Your task to perform on an android device: Open calendar and show me the second week of next month Image 0: 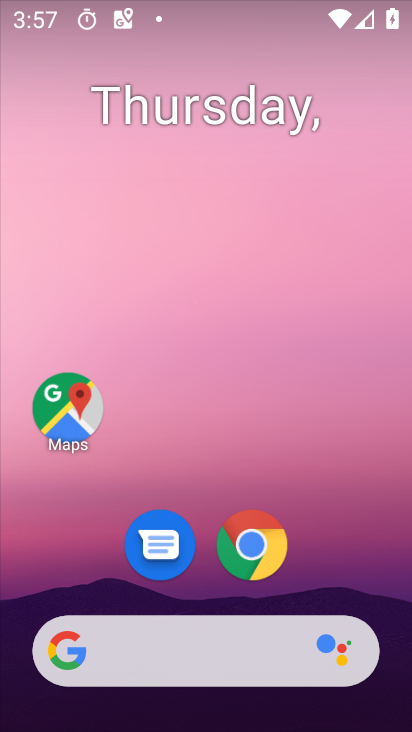
Step 0: drag from (218, 724) to (206, 196)
Your task to perform on an android device: Open calendar and show me the second week of next month Image 1: 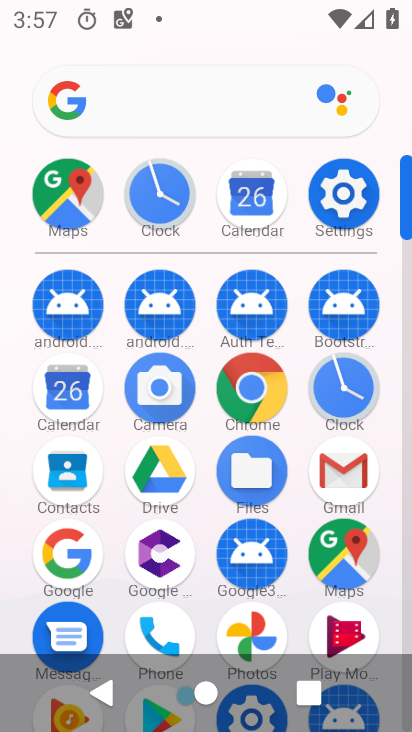
Step 1: click (56, 395)
Your task to perform on an android device: Open calendar and show me the second week of next month Image 2: 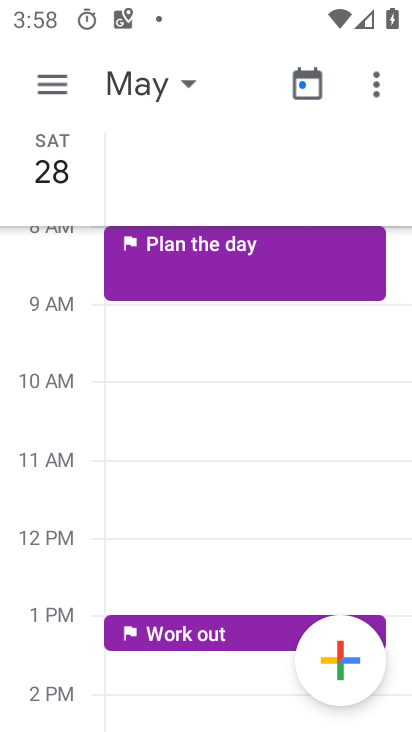
Step 2: click (188, 79)
Your task to perform on an android device: Open calendar and show me the second week of next month Image 3: 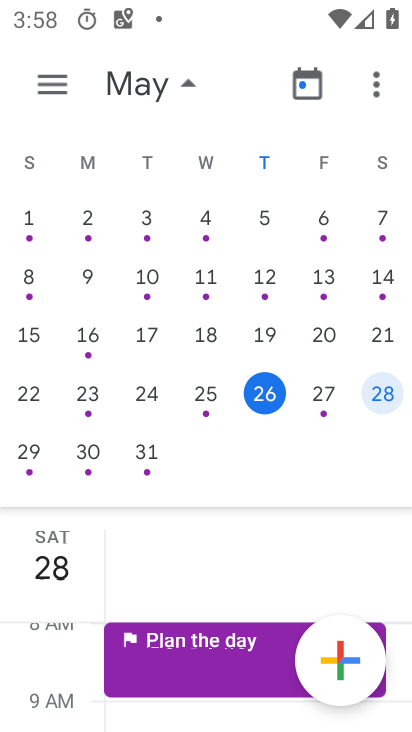
Step 3: drag from (340, 297) to (54, 276)
Your task to perform on an android device: Open calendar and show me the second week of next month Image 4: 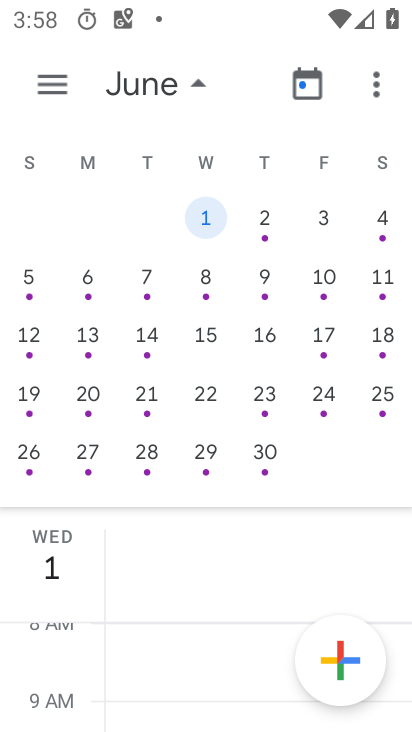
Step 4: click (85, 328)
Your task to perform on an android device: Open calendar and show me the second week of next month Image 5: 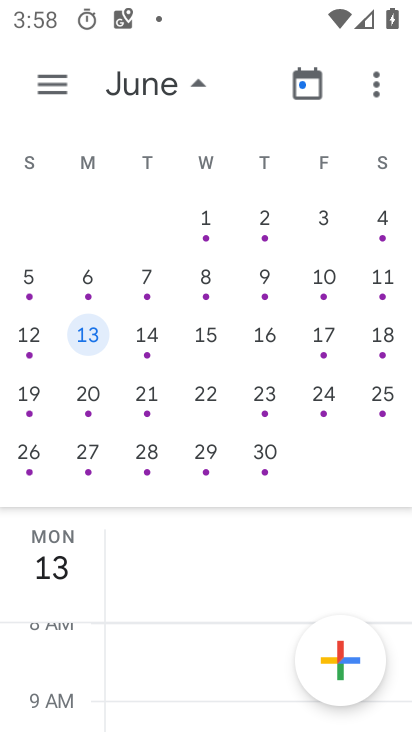
Step 5: click (49, 82)
Your task to perform on an android device: Open calendar and show me the second week of next month Image 6: 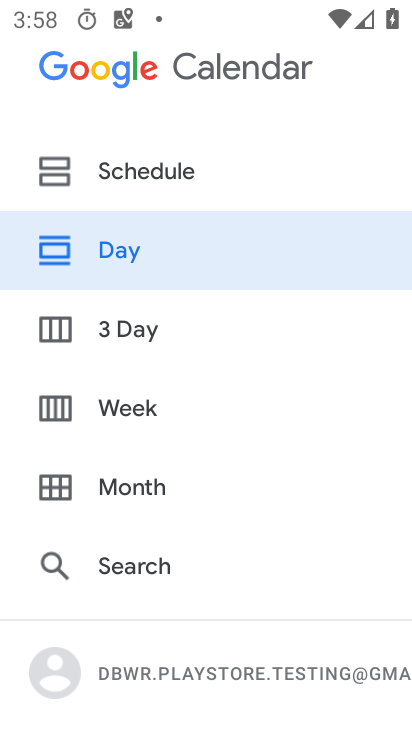
Step 6: click (127, 404)
Your task to perform on an android device: Open calendar and show me the second week of next month Image 7: 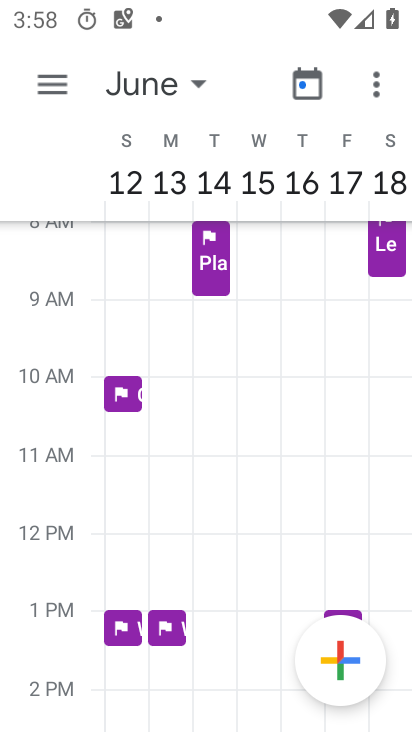
Step 7: task complete